Your task to perform on an android device: Open Google Maps and go to "Timeline" Image 0: 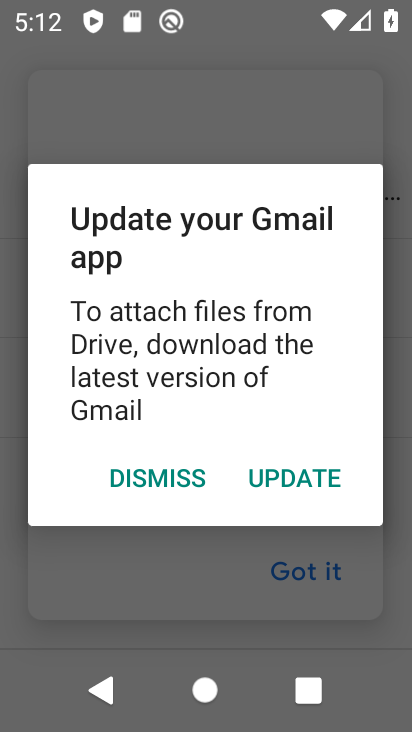
Step 0: press home button
Your task to perform on an android device: Open Google Maps and go to "Timeline" Image 1: 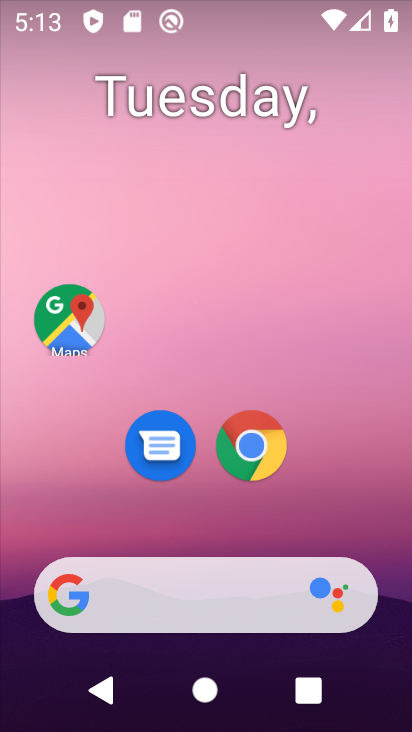
Step 1: drag from (272, 513) to (320, 91)
Your task to perform on an android device: Open Google Maps and go to "Timeline" Image 2: 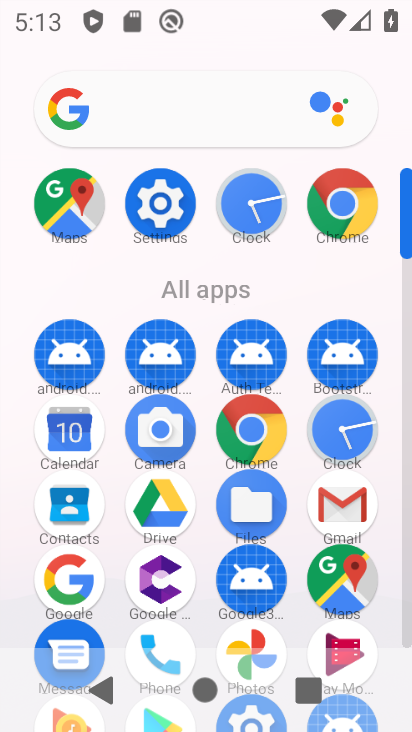
Step 2: click (351, 576)
Your task to perform on an android device: Open Google Maps and go to "Timeline" Image 3: 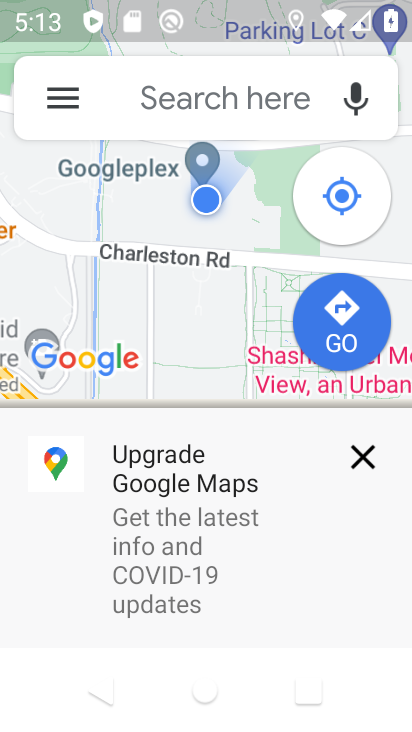
Step 3: click (63, 96)
Your task to perform on an android device: Open Google Maps and go to "Timeline" Image 4: 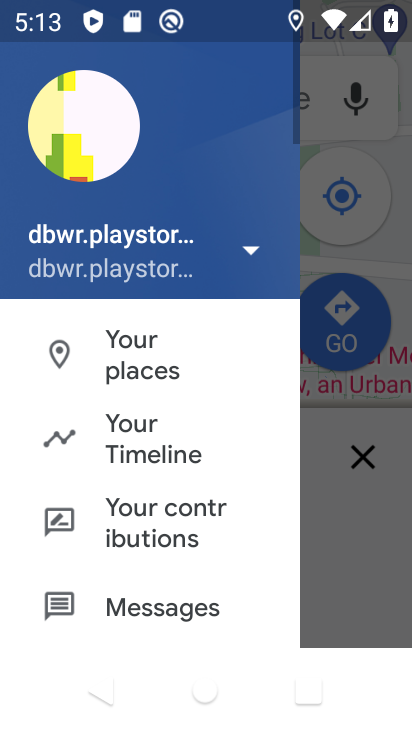
Step 4: click (164, 444)
Your task to perform on an android device: Open Google Maps and go to "Timeline" Image 5: 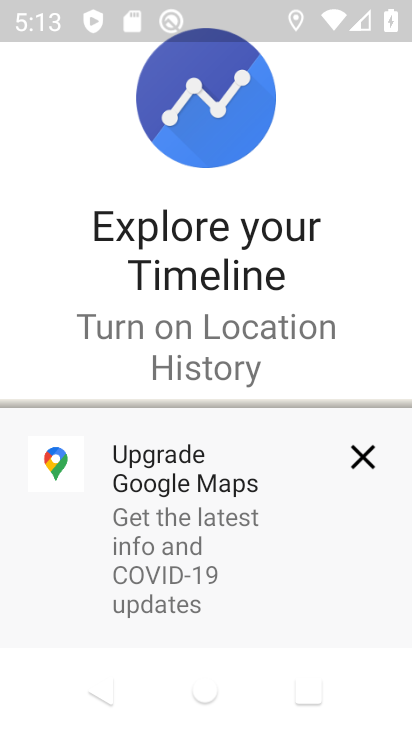
Step 5: click (359, 449)
Your task to perform on an android device: Open Google Maps and go to "Timeline" Image 6: 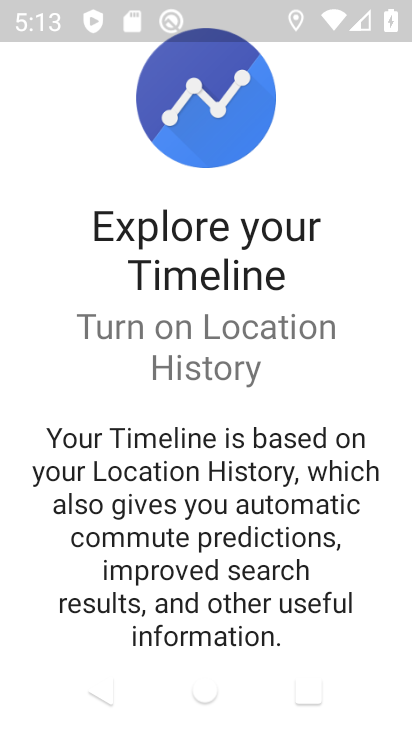
Step 6: drag from (326, 544) to (364, 225)
Your task to perform on an android device: Open Google Maps and go to "Timeline" Image 7: 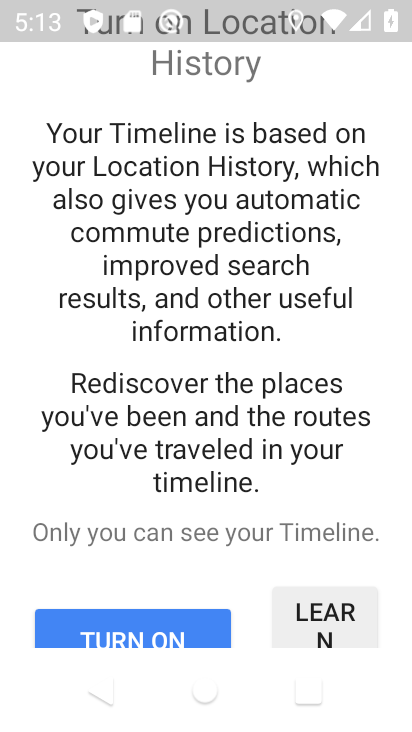
Step 7: click (165, 631)
Your task to perform on an android device: Open Google Maps and go to "Timeline" Image 8: 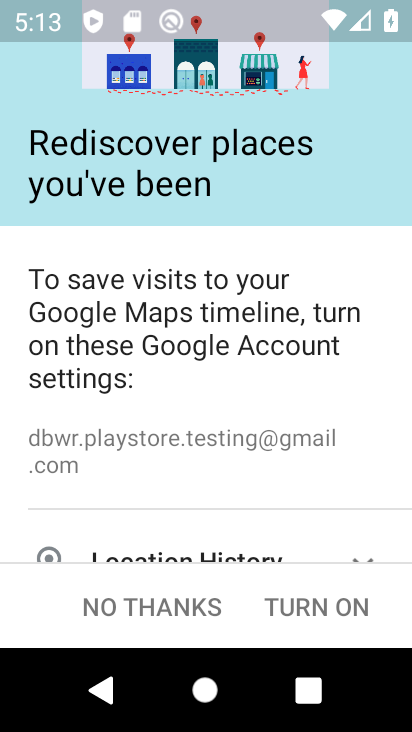
Step 8: click (305, 606)
Your task to perform on an android device: Open Google Maps and go to "Timeline" Image 9: 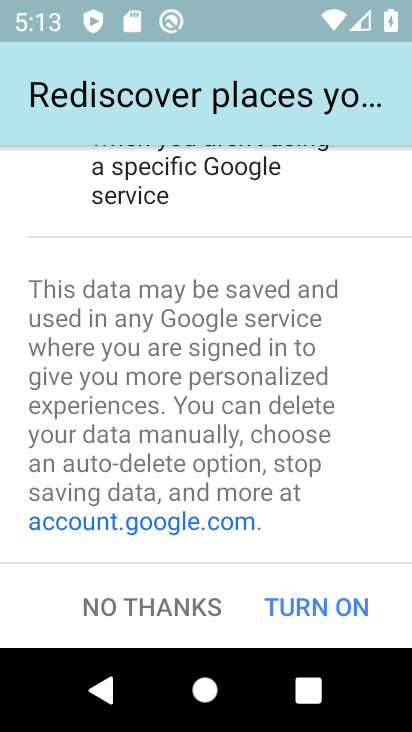
Step 9: click (322, 601)
Your task to perform on an android device: Open Google Maps and go to "Timeline" Image 10: 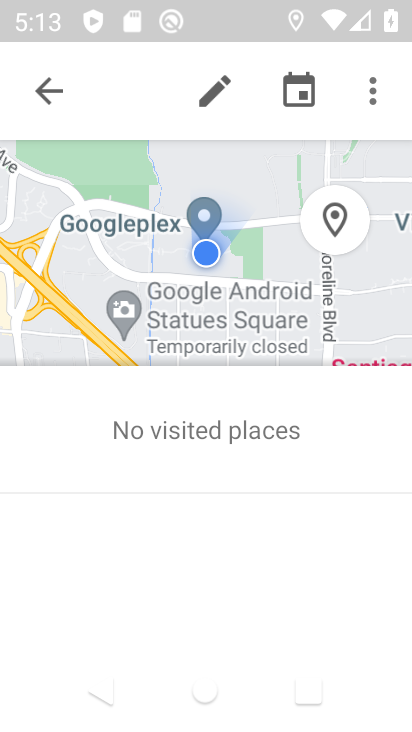
Step 10: task complete